Your task to perform on an android device: Do I have any events today? Image 0: 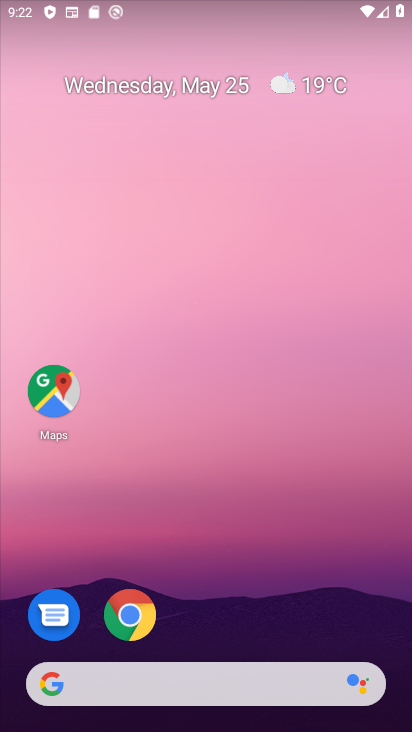
Step 0: drag from (274, 707) to (189, 154)
Your task to perform on an android device: Do I have any events today? Image 1: 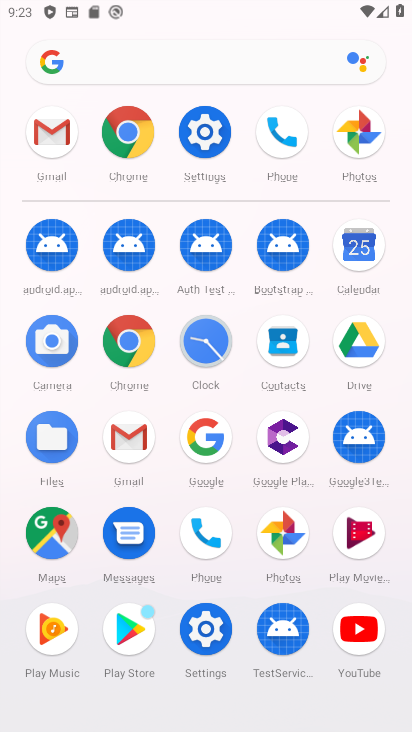
Step 1: click (348, 261)
Your task to perform on an android device: Do I have any events today? Image 2: 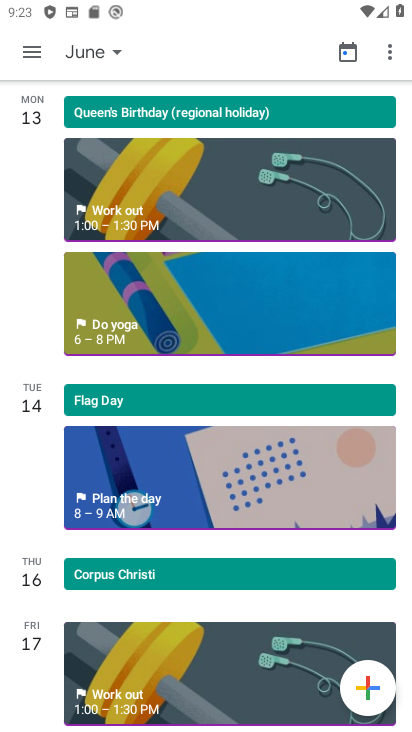
Step 2: click (24, 63)
Your task to perform on an android device: Do I have any events today? Image 3: 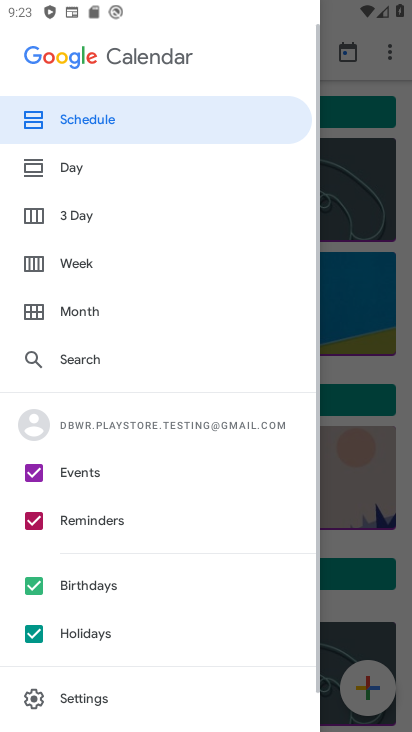
Step 3: click (72, 311)
Your task to perform on an android device: Do I have any events today? Image 4: 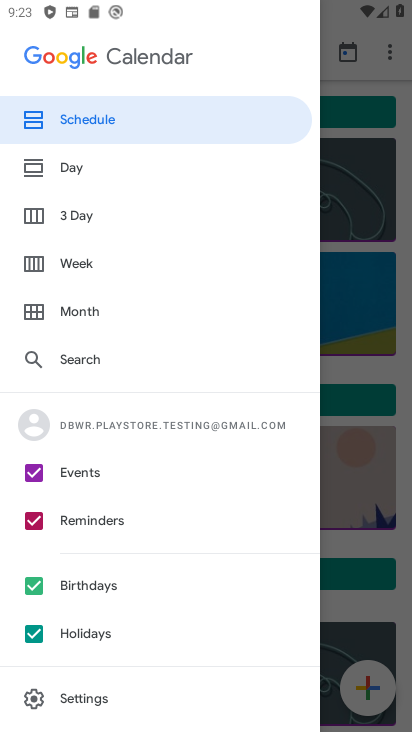
Step 4: click (84, 319)
Your task to perform on an android device: Do I have any events today? Image 5: 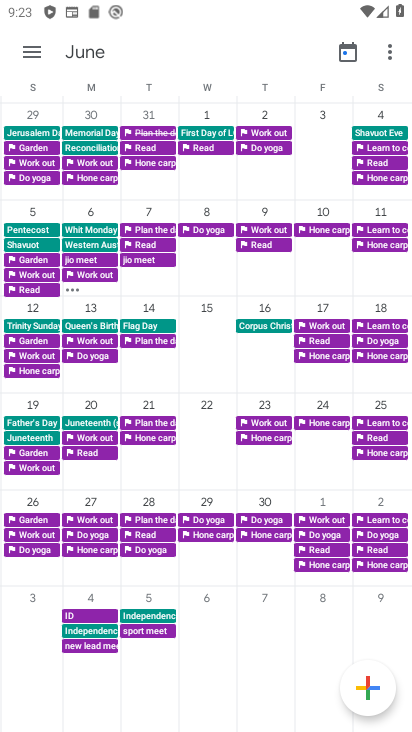
Step 5: drag from (30, 421) to (406, 225)
Your task to perform on an android device: Do I have any events today? Image 6: 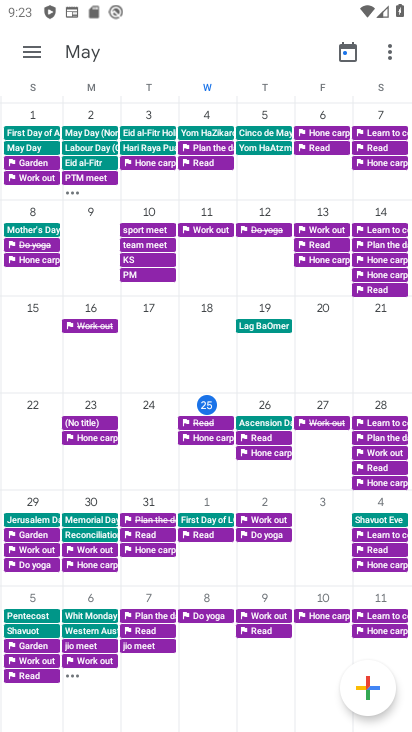
Step 6: click (42, 59)
Your task to perform on an android device: Do I have any events today? Image 7: 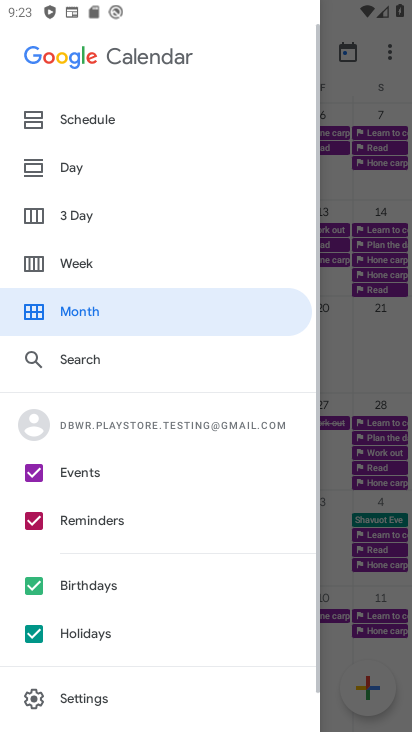
Step 7: click (79, 114)
Your task to perform on an android device: Do I have any events today? Image 8: 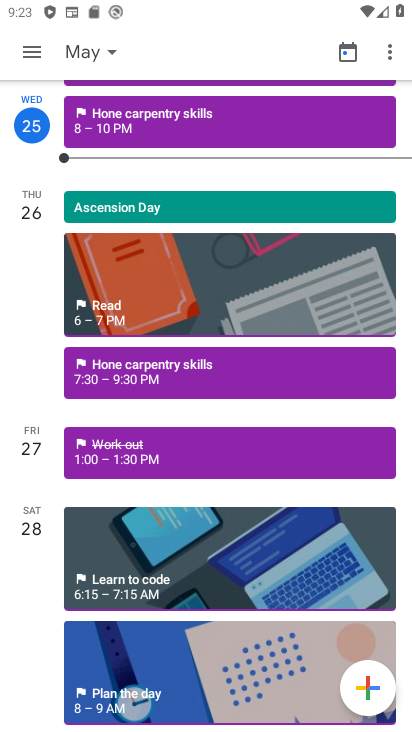
Step 8: task complete